Your task to perform on an android device: toggle sleep mode Image 0: 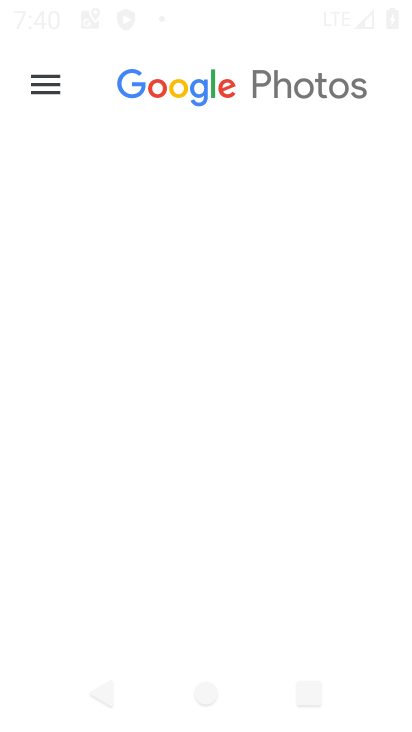
Step 0: click (378, 501)
Your task to perform on an android device: toggle sleep mode Image 1: 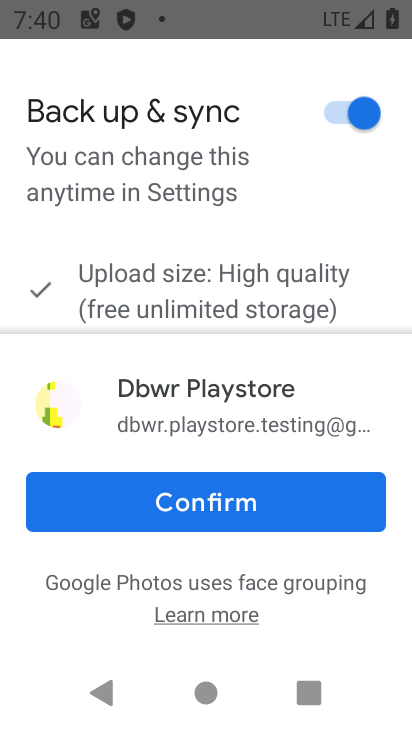
Step 1: press home button
Your task to perform on an android device: toggle sleep mode Image 2: 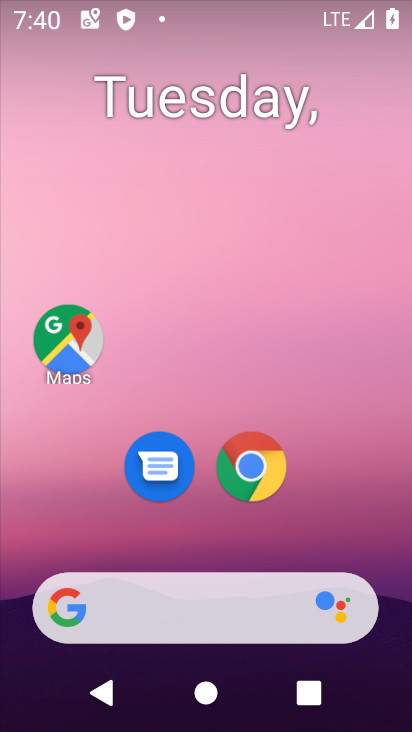
Step 2: drag from (332, 501) to (301, 4)
Your task to perform on an android device: toggle sleep mode Image 3: 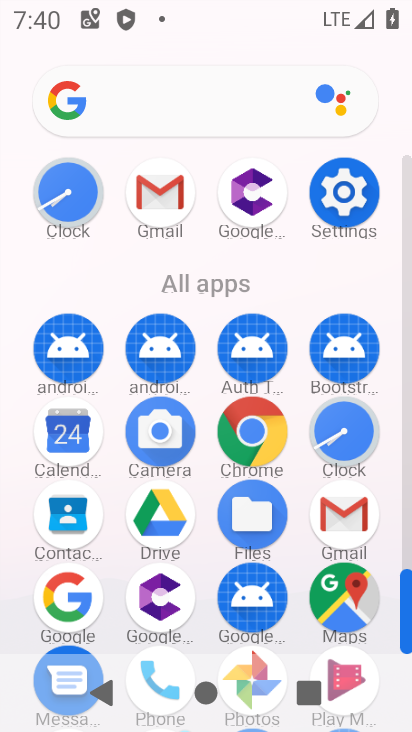
Step 3: click (332, 198)
Your task to perform on an android device: toggle sleep mode Image 4: 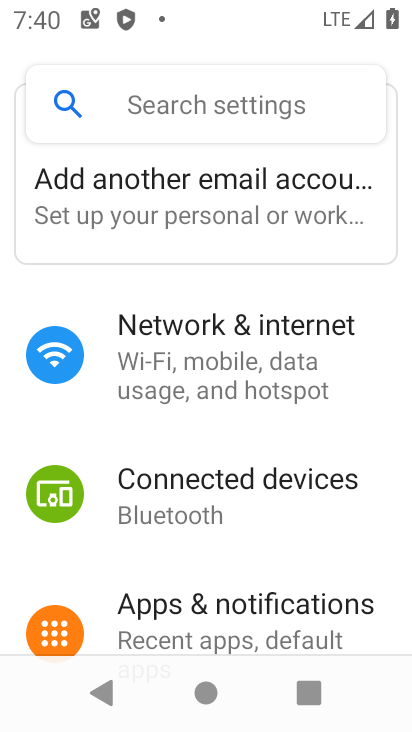
Step 4: drag from (216, 586) to (211, 282)
Your task to perform on an android device: toggle sleep mode Image 5: 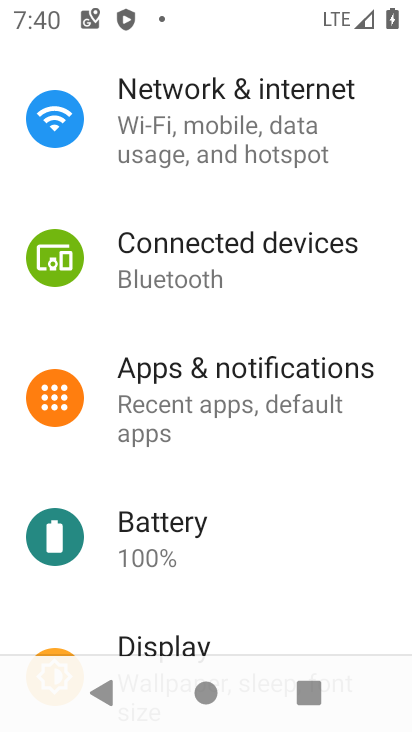
Step 5: drag from (200, 556) to (198, 316)
Your task to perform on an android device: toggle sleep mode Image 6: 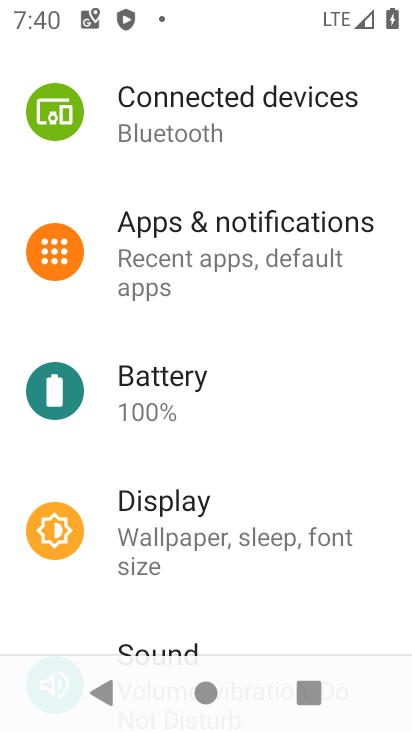
Step 6: click (214, 569)
Your task to perform on an android device: toggle sleep mode Image 7: 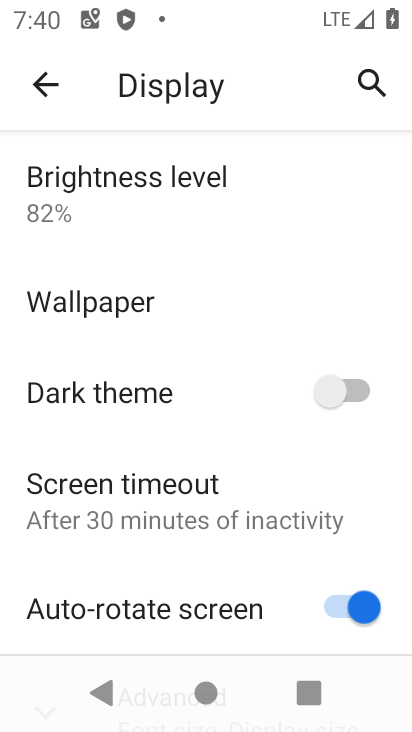
Step 7: click (304, 609)
Your task to perform on an android device: toggle sleep mode Image 8: 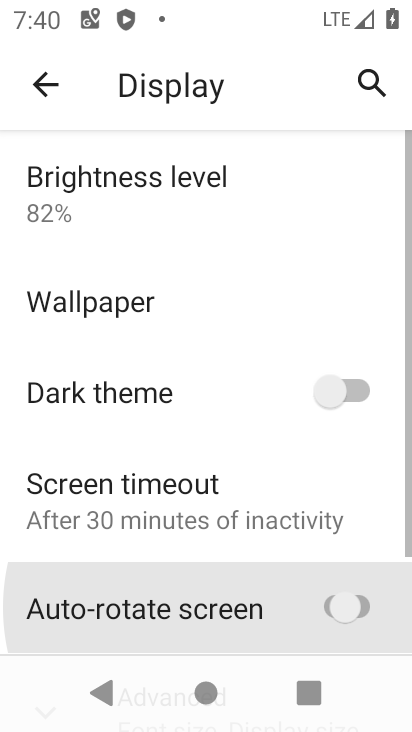
Step 8: click (304, 609)
Your task to perform on an android device: toggle sleep mode Image 9: 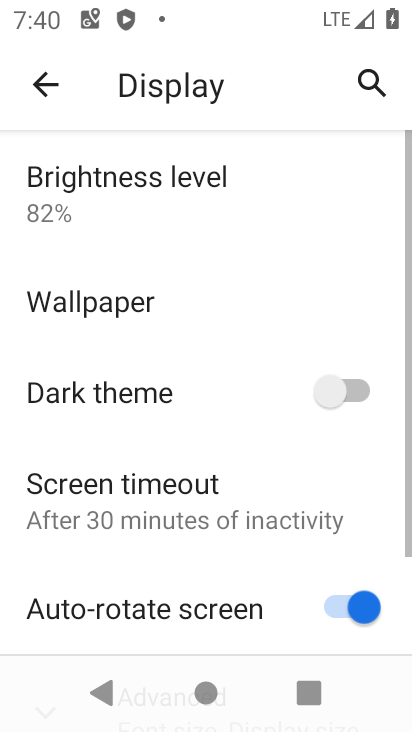
Step 9: click (241, 508)
Your task to perform on an android device: toggle sleep mode Image 10: 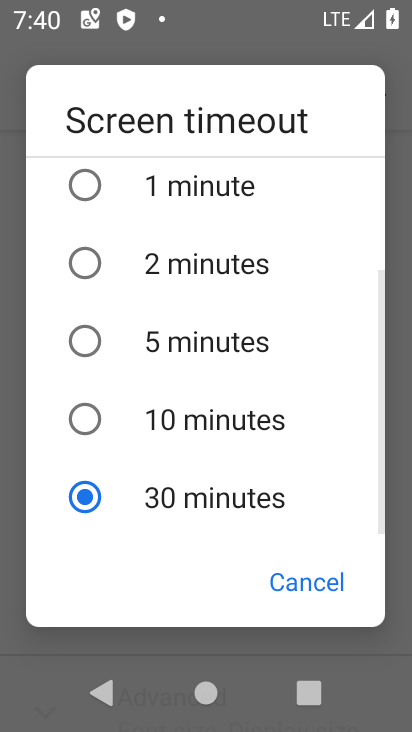
Step 10: click (257, 255)
Your task to perform on an android device: toggle sleep mode Image 11: 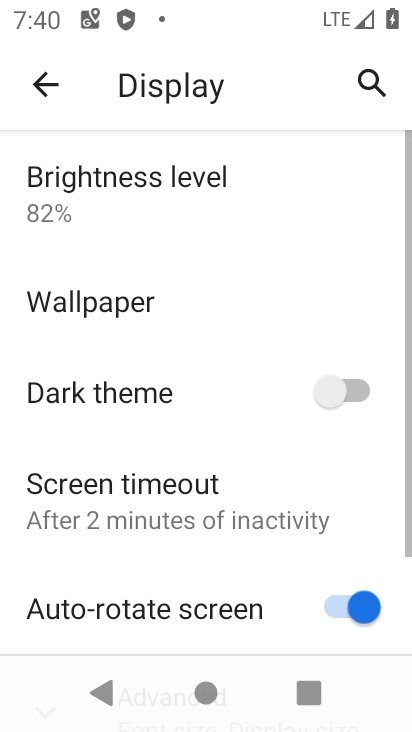
Step 11: task complete